Your task to perform on an android device: turn on the 24-hour format for clock Image 0: 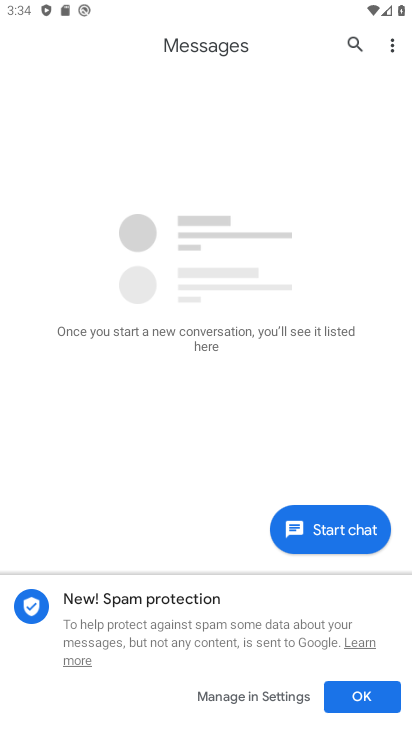
Step 0: press home button
Your task to perform on an android device: turn on the 24-hour format for clock Image 1: 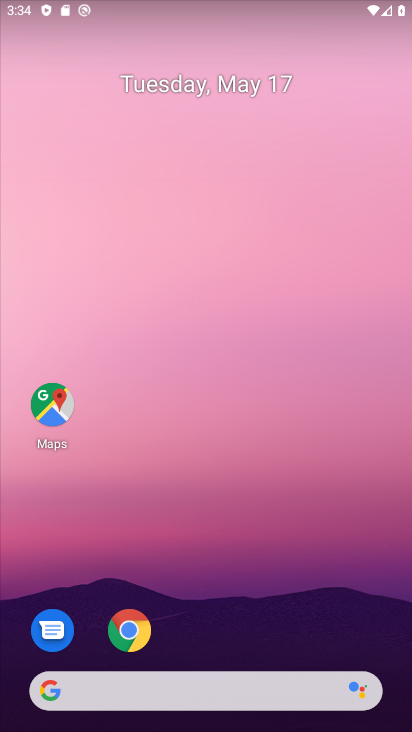
Step 1: drag from (195, 665) to (337, 167)
Your task to perform on an android device: turn on the 24-hour format for clock Image 2: 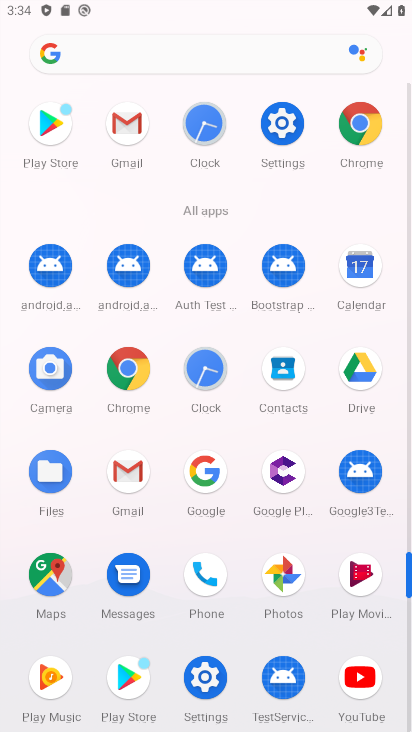
Step 2: click (204, 370)
Your task to perform on an android device: turn on the 24-hour format for clock Image 3: 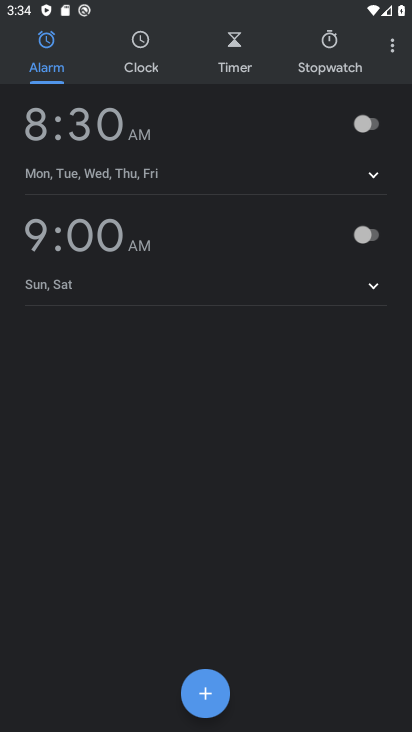
Step 3: click (391, 48)
Your task to perform on an android device: turn on the 24-hour format for clock Image 4: 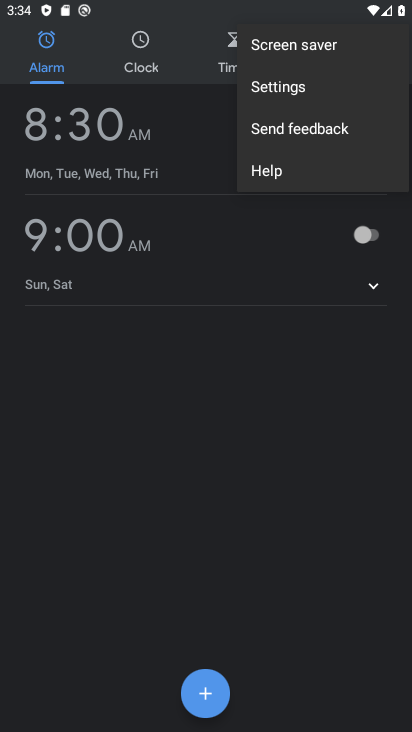
Step 4: click (352, 87)
Your task to perform on an android device: turn on the 24-hour format for clock Image 5: 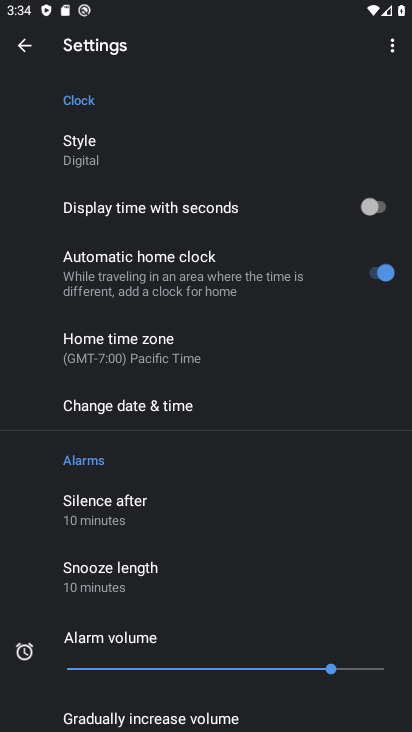
Step 5: click (256, 406)
Your task to perform on an android device: turn on the 24-hour format for clock Image 6: 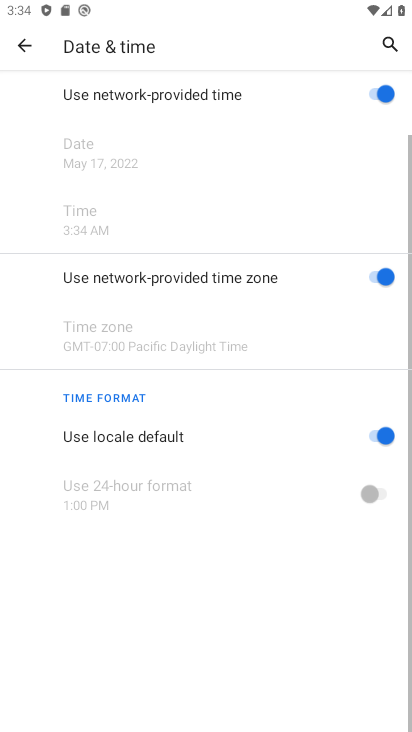
Step 6: drag from (180, 641) to (335, 165)
Your task to perform on an android device: turn on the 24-hour format for clock Image 7: 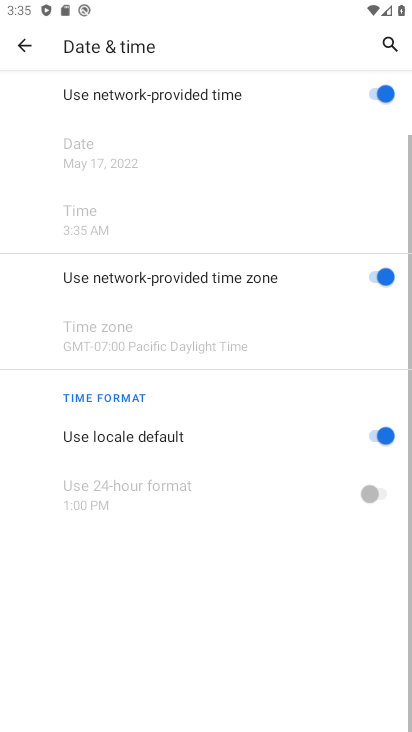
Step 7: click (379, 443)
Your task to perform on an android device: turn on the 24-hour format for clock Image 8: 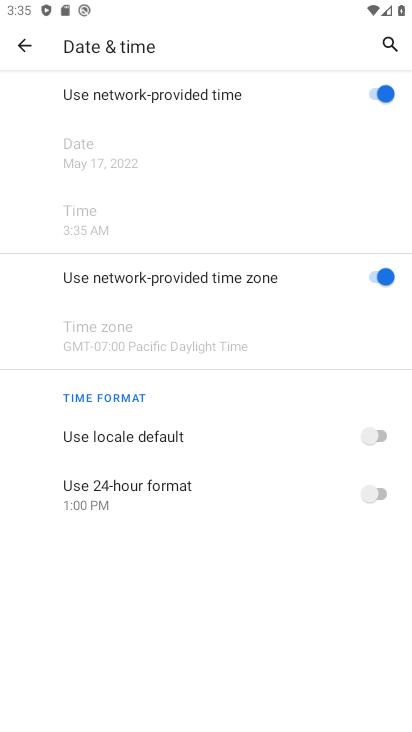
Step 8: click (391, 488)
Your task to perform on an android device: turn on the 24-hour format for clock Image 9: 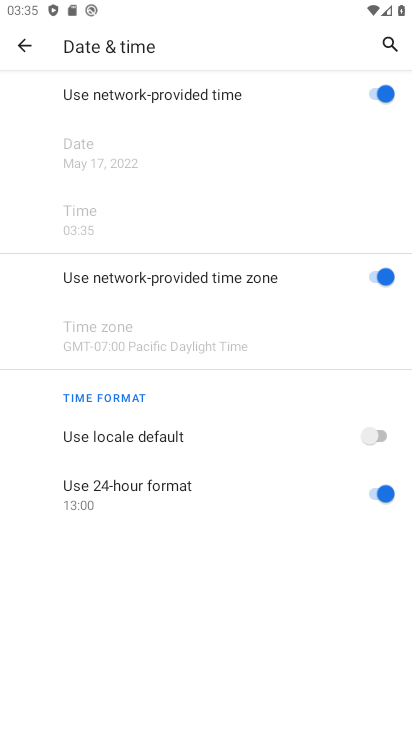
Step 9: task complete